Your task to perform on an android device: Open Google Chrome and open the bookmarks view Image 0: 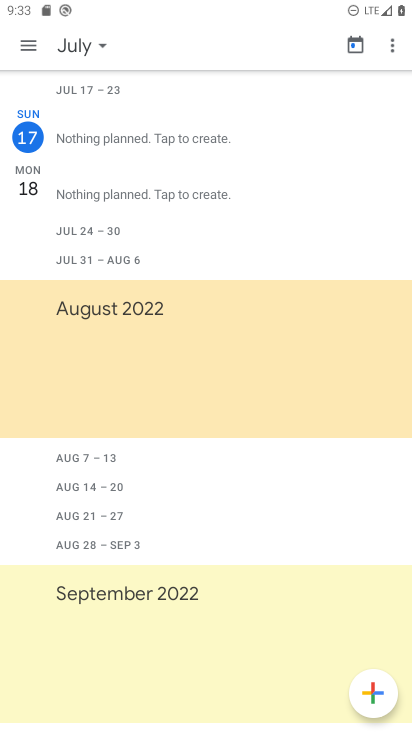
Step 0: press home button
Your task to perform on an android device: Open Google Chrome and open the bookmarks view Image 1: 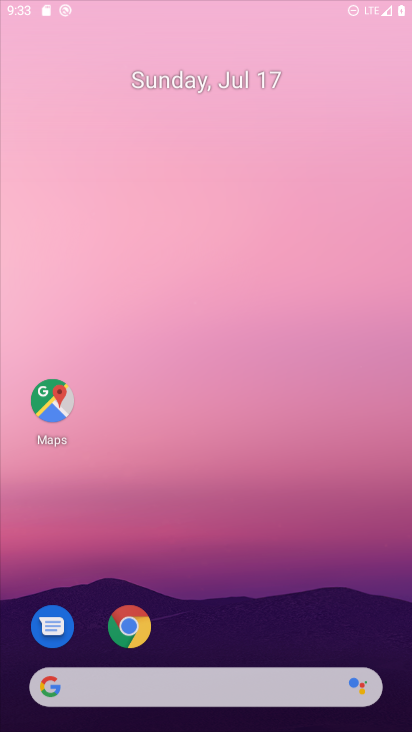
Step 1: drag from (293, 692) to (184, 35)
Your task to perform on an android device: Open Google Chrome and open the bookmarks view Image 2: 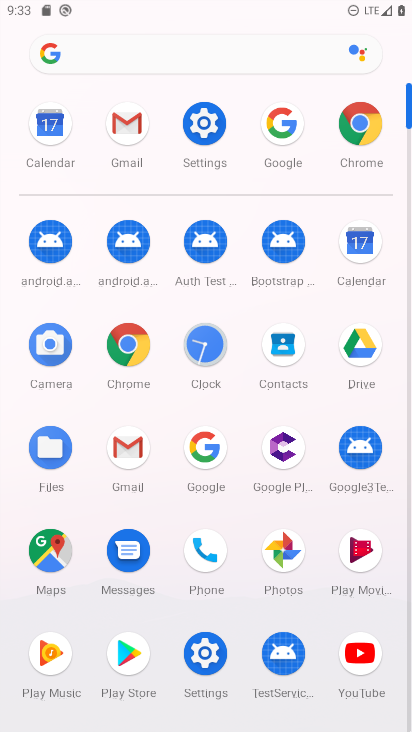
Step 2: click (351, 113)
Your task to perform on an android device: Open Google Chrome and open the bookmarks view Image 3: 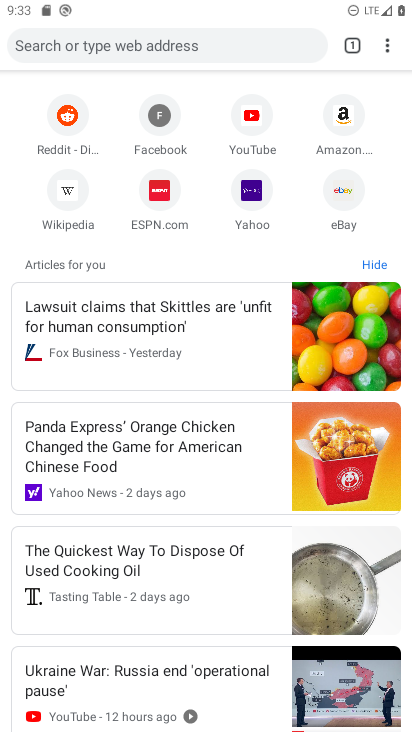
Step 3: click (387, 45)
Your task to perform on an android device: Open Google Chrome and open the bookmarks view Image 4: 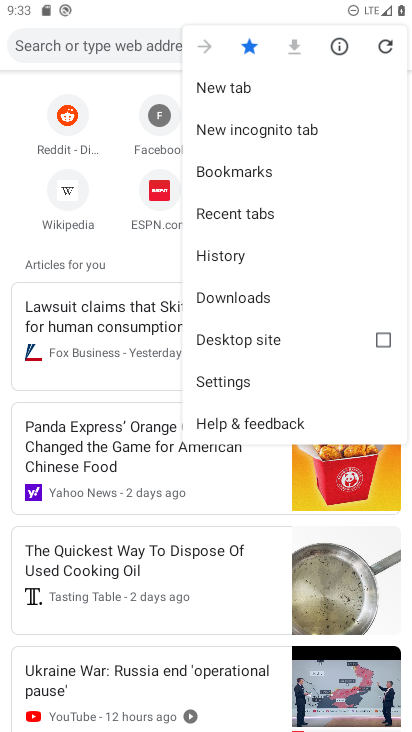
Step 4: click (247, 178)
Your task to perform on an android device: Open Google Chrome and open the bookmarks view Image 5: 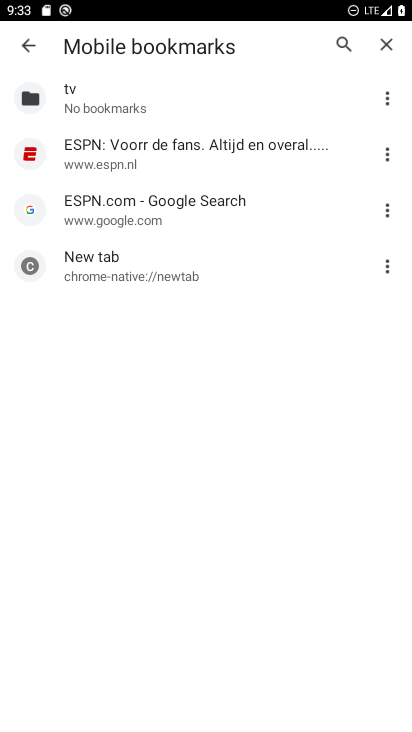
Step 5: task complete